Your task to perform on an android device: Search for dining room chairs on Crate & Barrel Image 0: 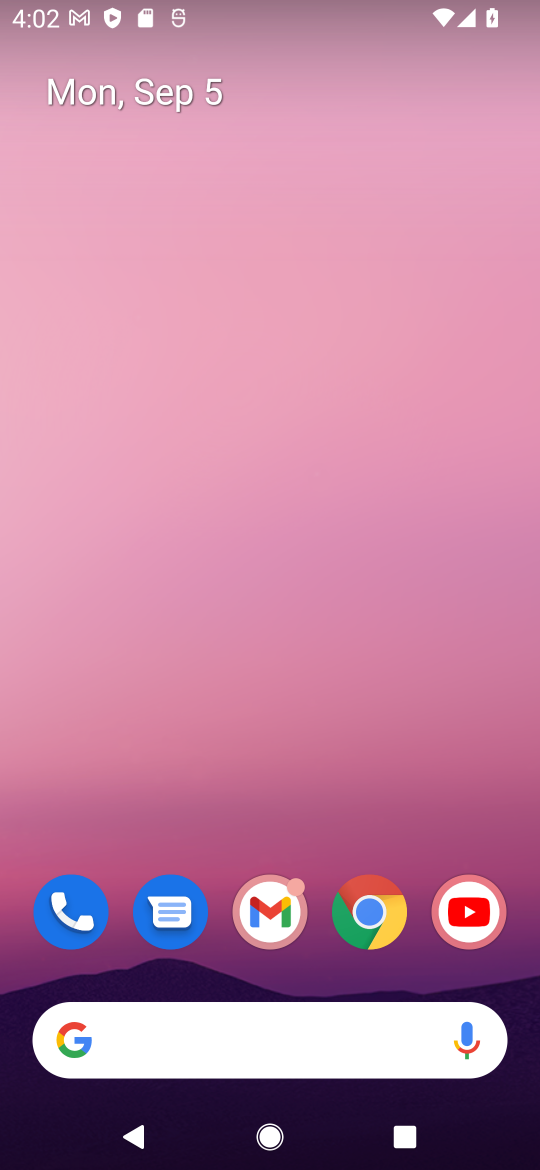
Step 0: click (371, 942)
Your task to perform on an android device: Search for dining room chairs on Crate & Barrel Image 1: 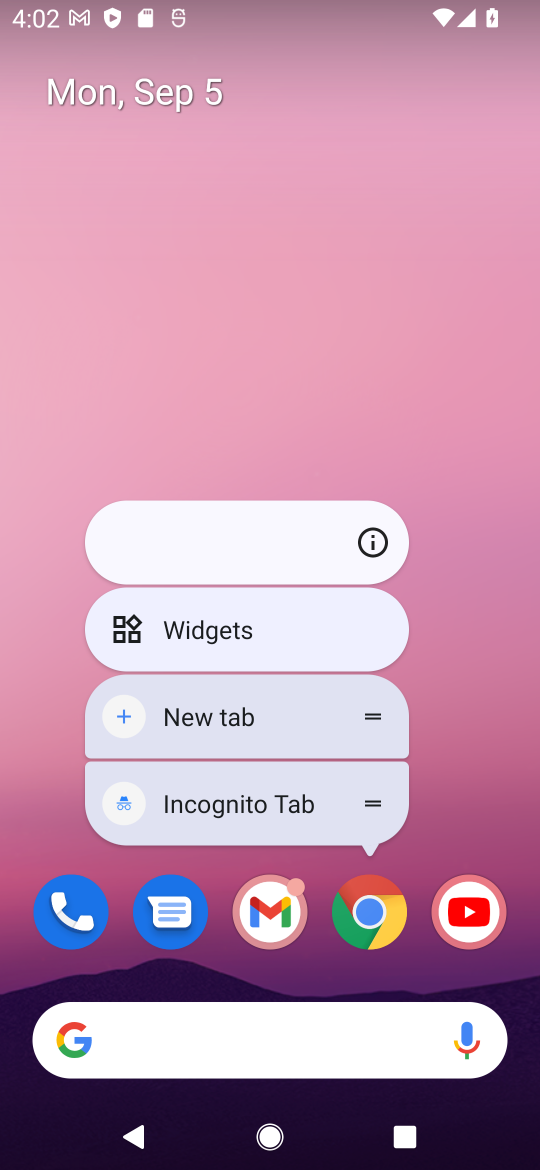
Step 1: click (371, 942)
Your task to perform on an android device: Search for dining room chairs on Crate & Barrel Image 2: 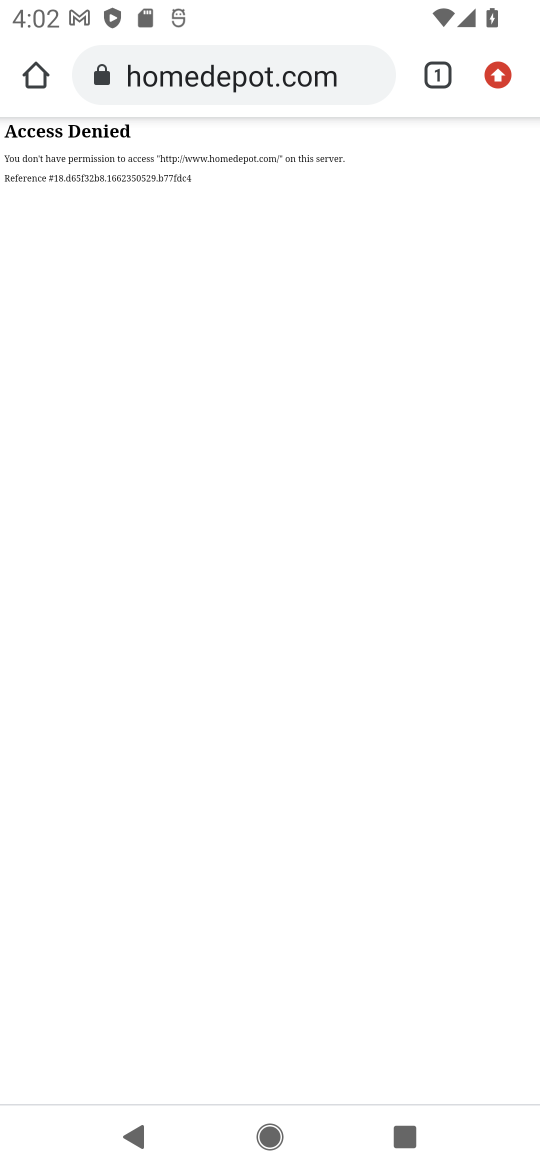
Step 2: click (232, 105)
Your task to perform on an android device: Search for dining room chairs on Crate & Barrel Image 3: 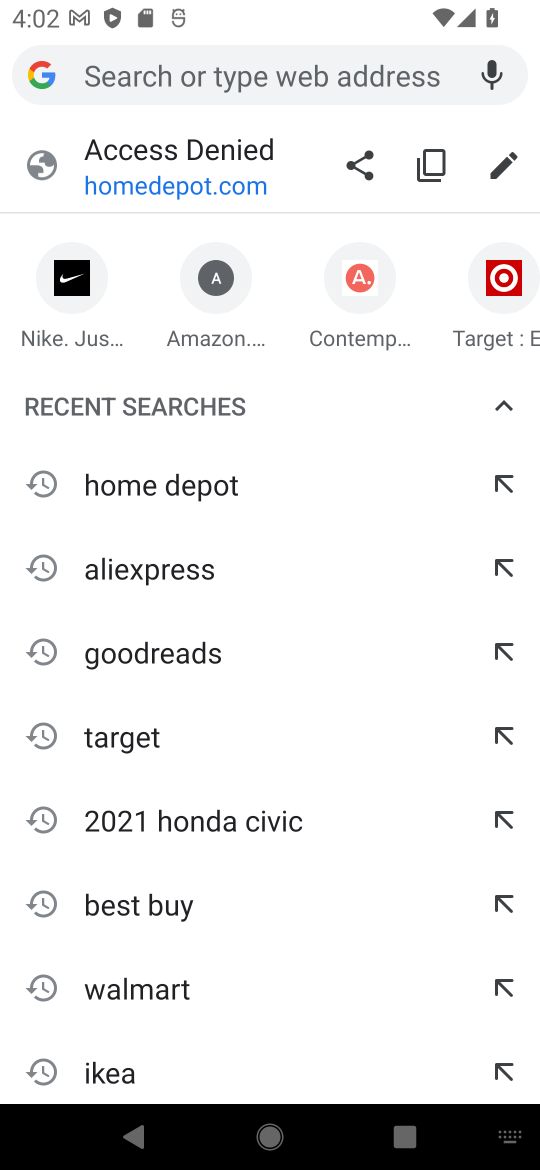
Step 3: type "crate & barrel"
Your task to perform on an android device: Search for dining room chairs on Crate & Barrel Image 4: 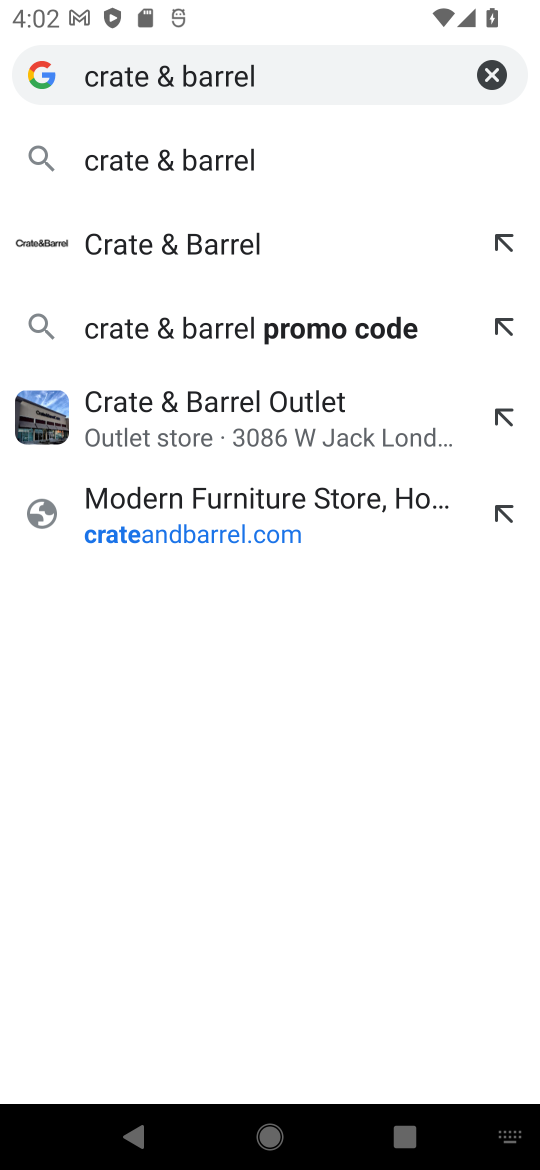
Step 4: press enter
Your task to perform on an android device: Search for dining room chairs on Crate & Barrel Image 5: 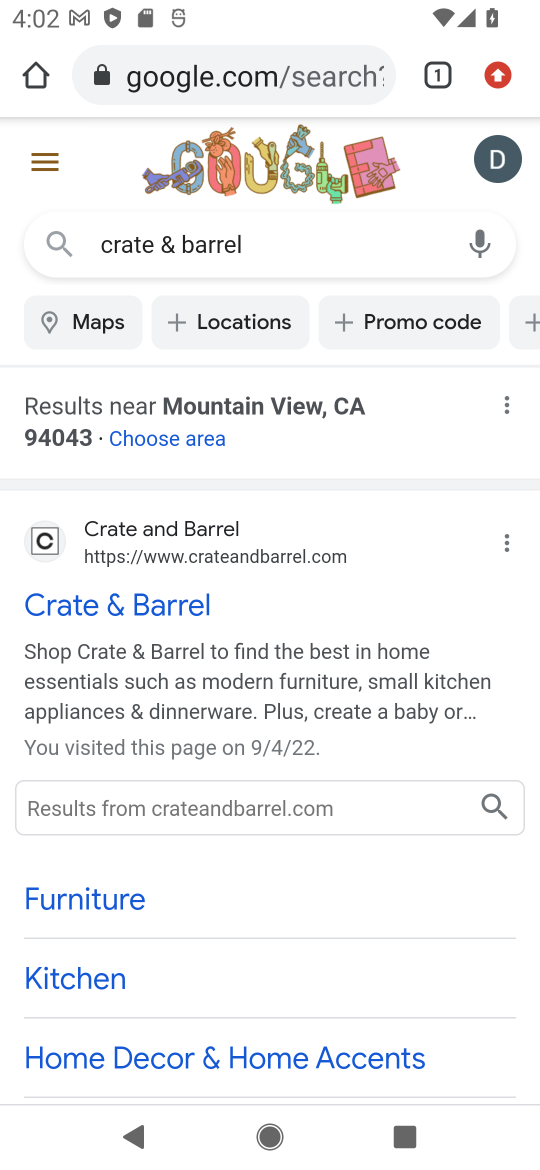
Step 5: click (171, 600)
Your task to perform on an android device: Search for dining room chairs on Crate & Barrel Image 6: 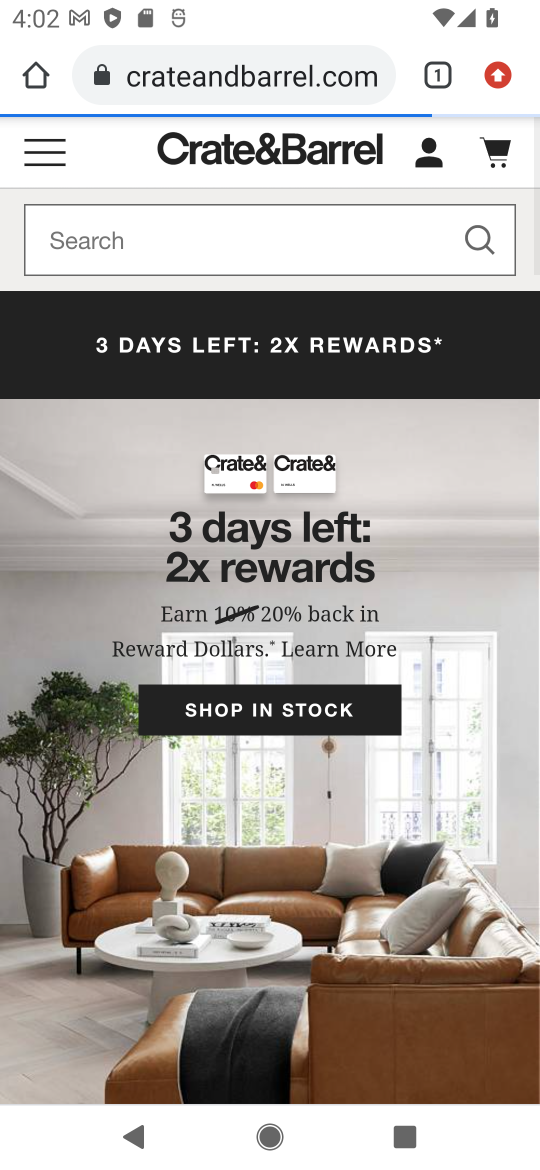
Step 6: click (273, 243)
Your task to perform on an android device: Search for dining room chairs on Crate & Barrel Image 7: 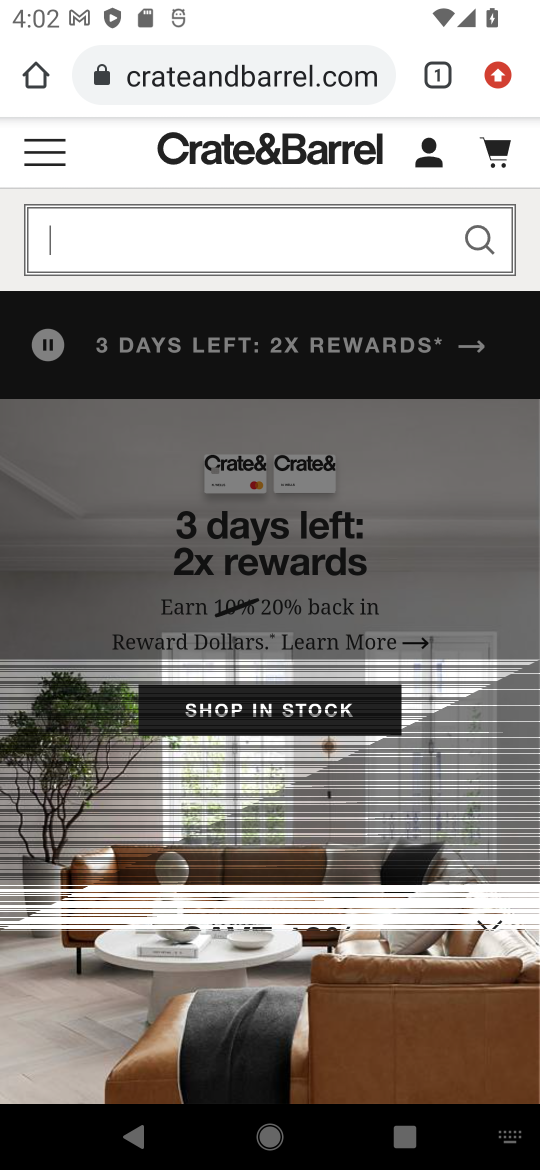
Step 7: click (501, 935)
Your task to perform on an android device: Search for dining room chairs on Crate & Barrel Image 8: 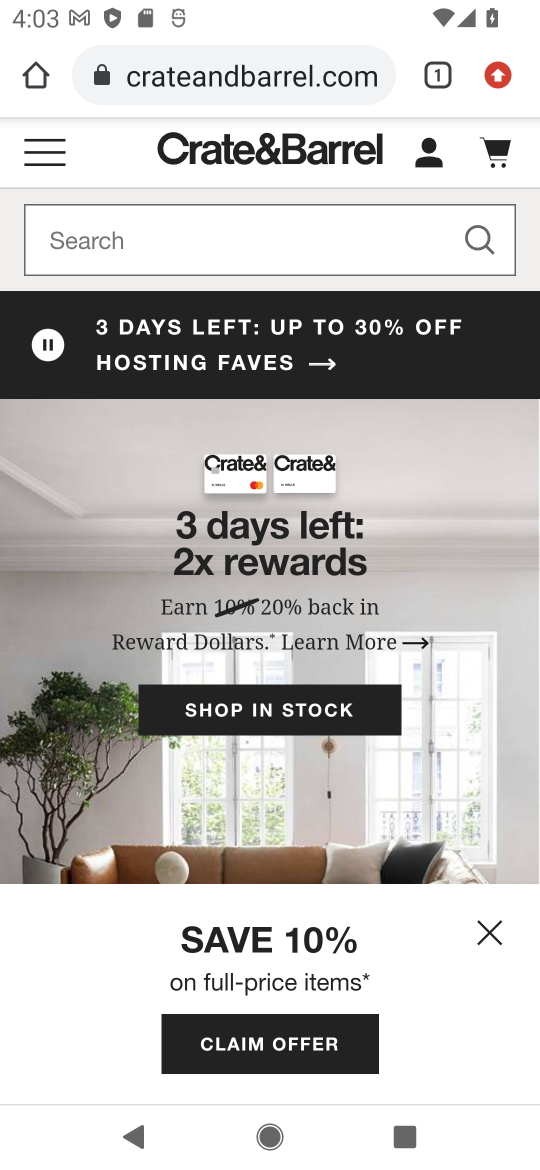
Step 8: click (369, 234)
Your task to perform on an android device: Search for dining room chairs on Crate & Barrel Image 9: 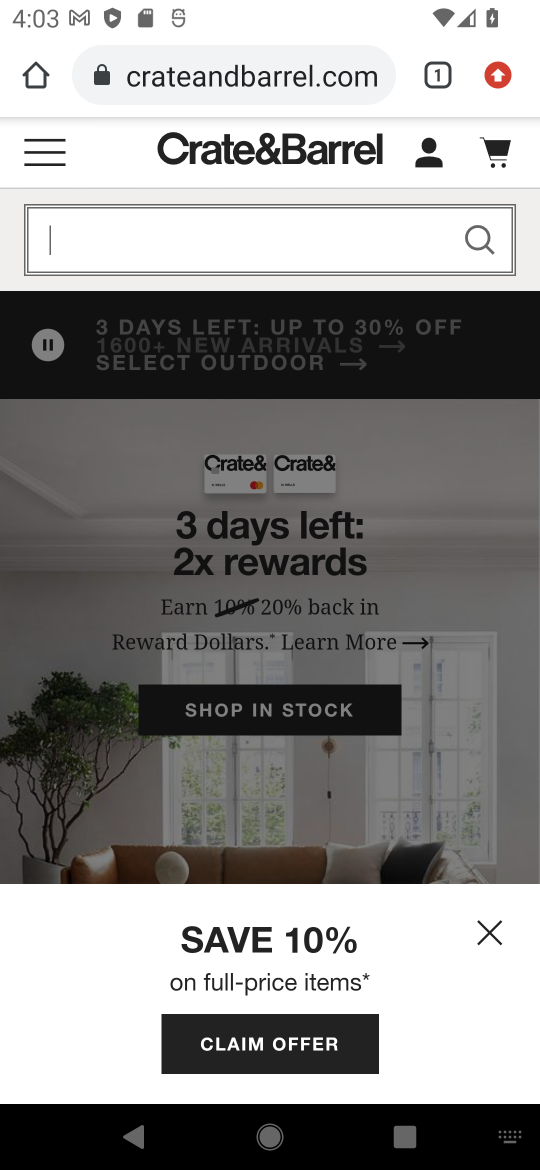
Step 9: type "dining room chairs"
Your task to perform on an android device: Search for dining room chairs on Crate & Barrel Image 10: 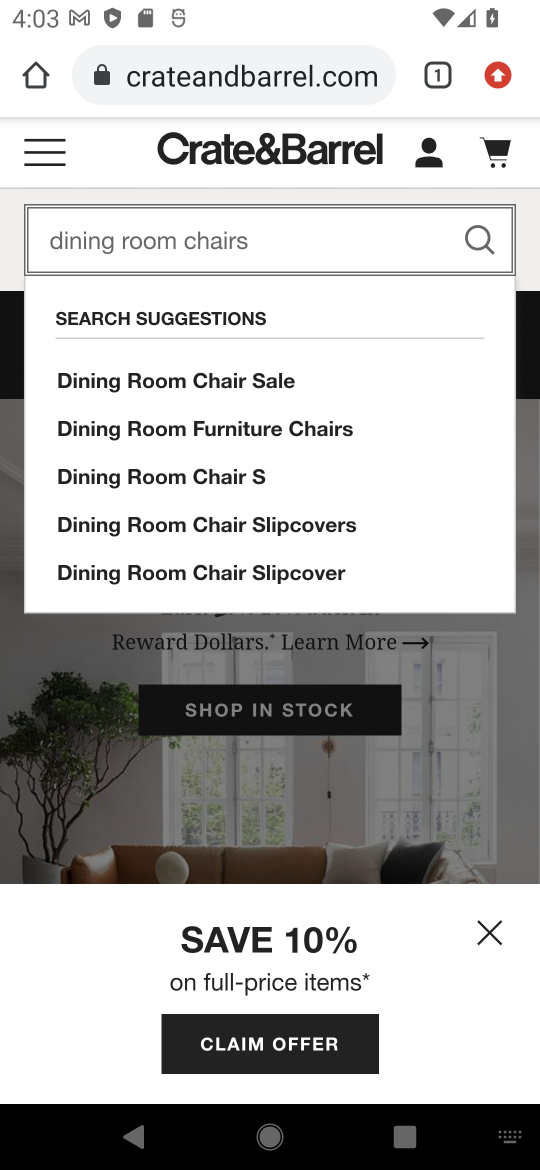
Step 10: press enter
Your task to perform on an android device: Search for dining room chairs on Crate & Barrel Image 11: 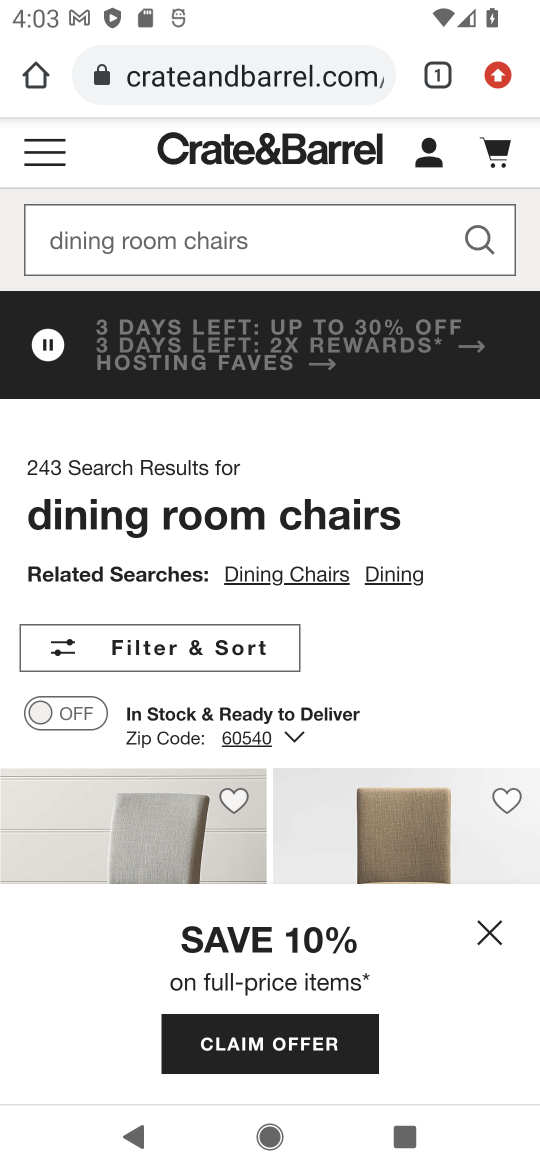
Step 11: task complete